Your task to perform on an android device: Open the phone app and click the voicemail tab. Image 0: 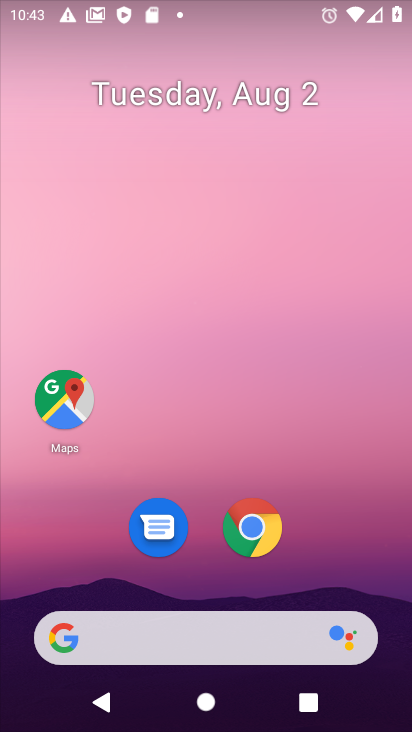
Step 0: press home button
Your task to perform on an android device: Open the phone app and click the voicemail tab. Image 1: 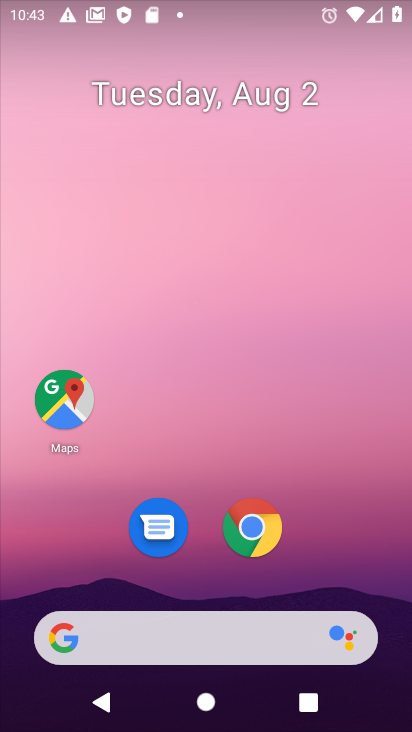
Step 1: drag from (201, 586) to (245, 55)
Your task to perform on an android device: Open the phone app and click the voicemail tab. Image 2: 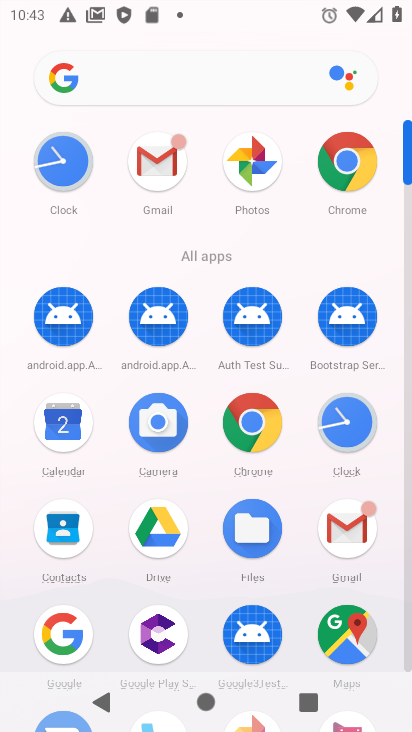
Step 2: drag from (199, 608) to (234, 99)
Your task to perform on an android device: Open the phone app and click the voicemail tab. Image 3: 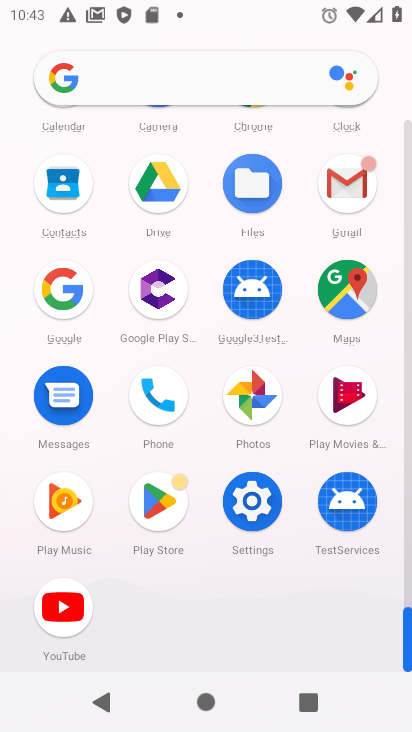
Step 3: click (154, 384)
Your task to perform on an android device: Open the phone app and click the voicemail tab. Image 4: 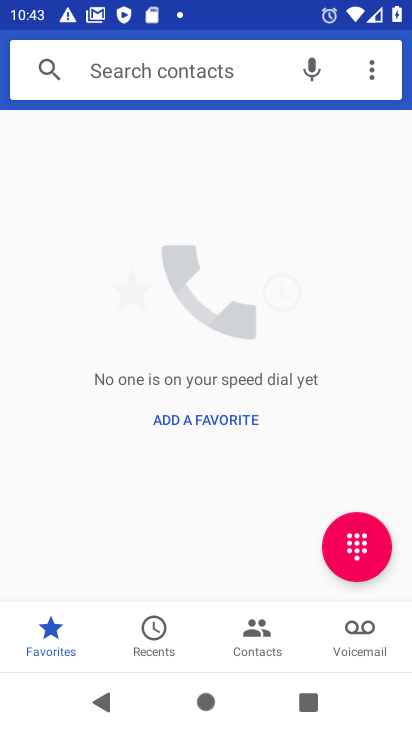
Step 4: click (352, 618)
Your task to perform on an android device: Open the phone app and click the voicemail tab. Image 5: 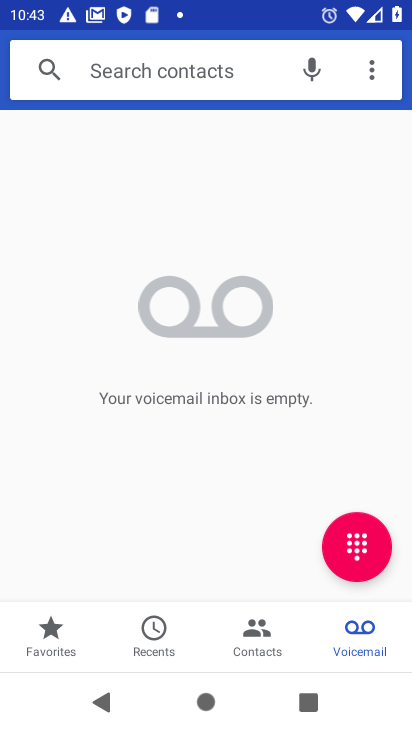
Step 5: task complete